Your task to perform on an android device: Open sound settings Image 0: 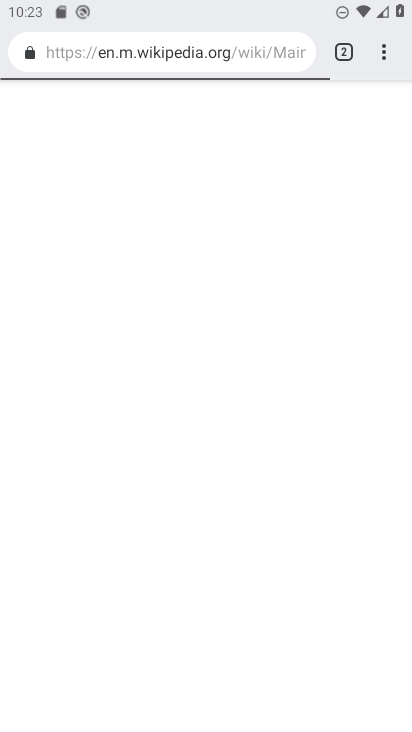
Step 0: press home button
Your task to perform on an android device: Open sound settings Image 1: 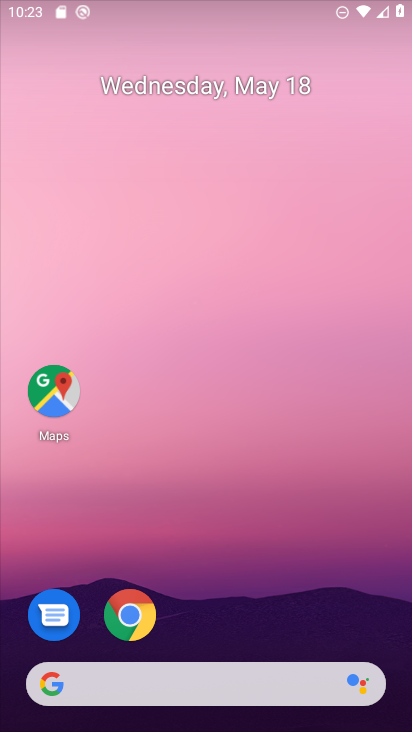
Step 1: drag from (231, 586) to (233, 167)
Your task to perform on an android device: Open sound settings Image 2: 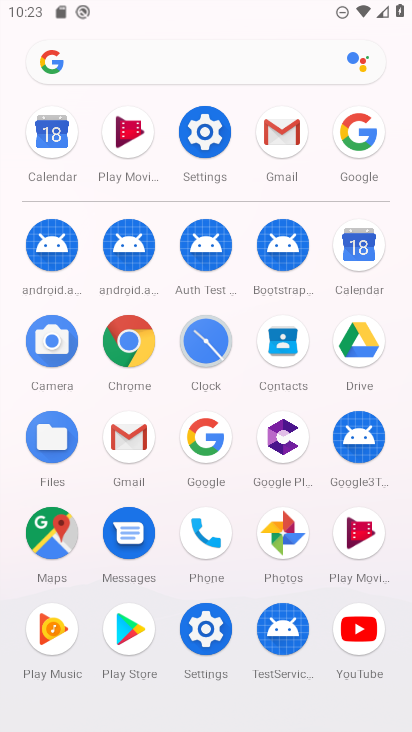
Step 2: click (210, 135)
Your task to perform on an android device: Open sound settings Image 3: 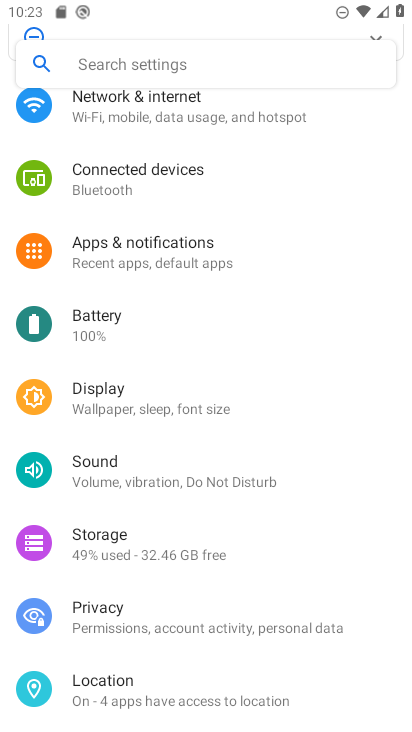
Step 3: click (147, 473)
Your task to perform on an android device: Open sound settings Image 4: 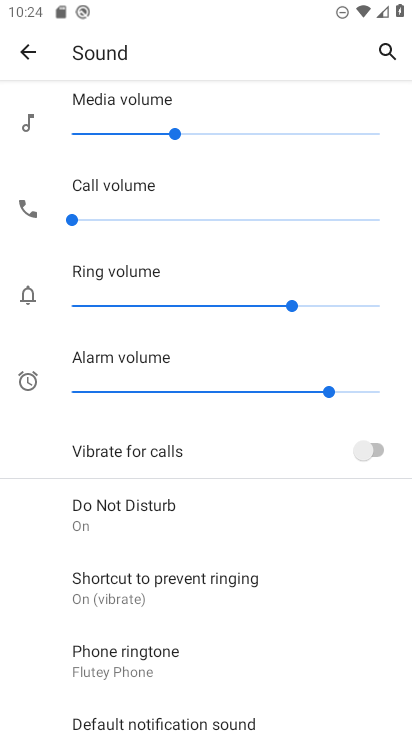
Step 4: task complete